Your task to perform on an android device: turn off data saver in the chrome app Image 0: 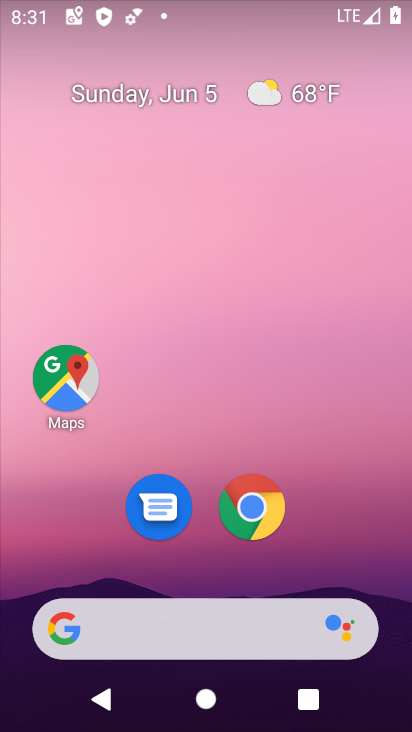
Step 0: click (264, 500)
Your task to perform on an android device: turn off data saver in the chrome app Image 1: 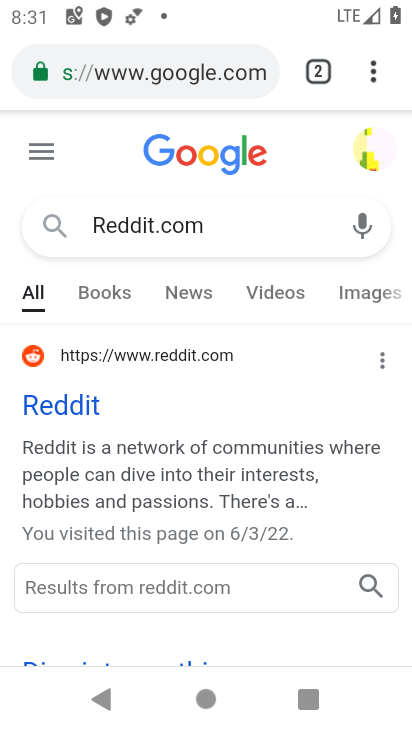
Step 1: click (370, 71)
Your task to perform on an android device: turn off data saver in the chrome app Image 2: 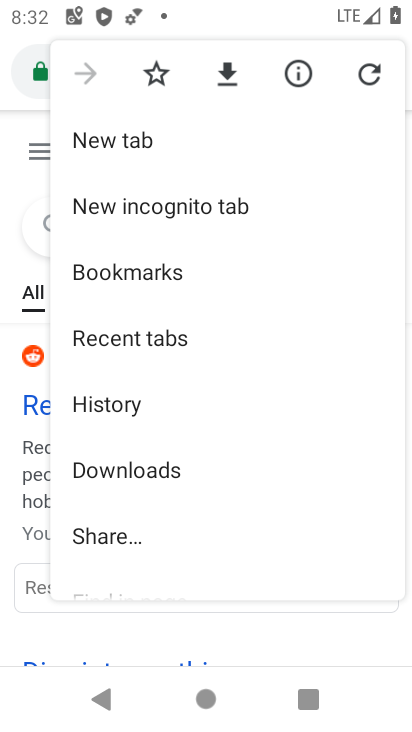
Step 2: drag from (179, 505) to (232, 155)
Your task to perform on an android device: turn off data saver in the chrome app Image 3: 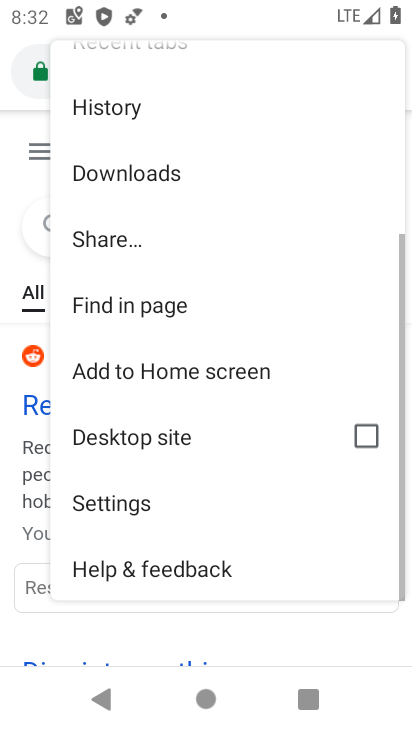
Step 3: drag from (158, 529) to (215, 178)
Your task to perform on an android device: turn off data saver in the chrome app Image 4: 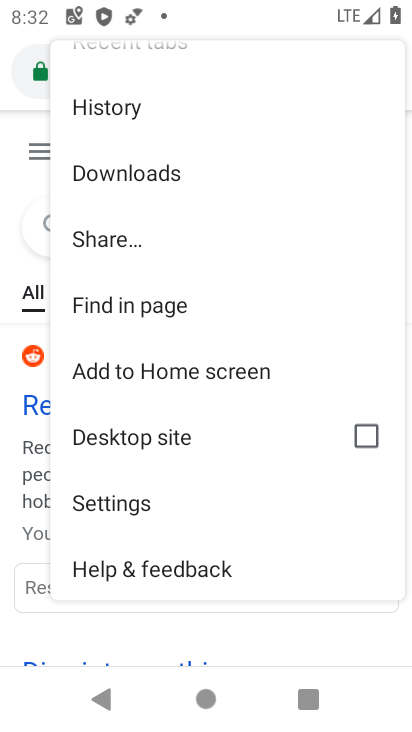
Step 4: click (135, 505)
Your task to perform on an android device: turn off data saver in the chrome app Image 5: 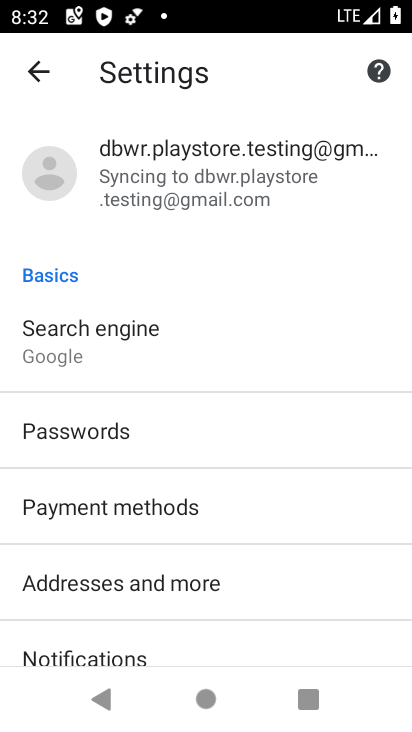
Step 5: drag from (121, 586) to (150, 77)
Your task to perform on an android device: turn off data saver in the chrome app Image 6: 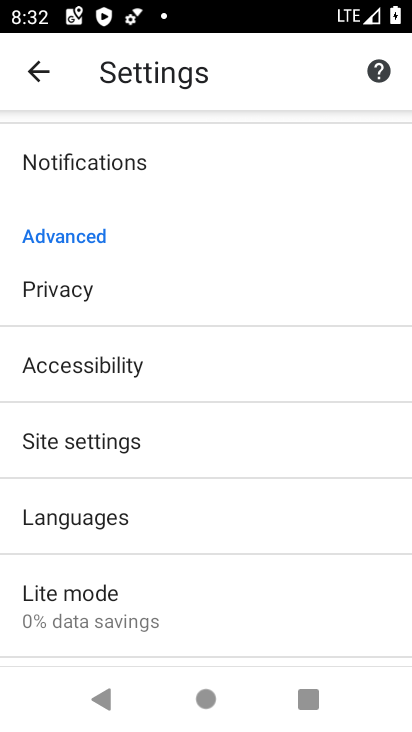
Step 6: click (105, 608)
Your task to perform on an android device: turn off data saver in the chrome app Image 7: 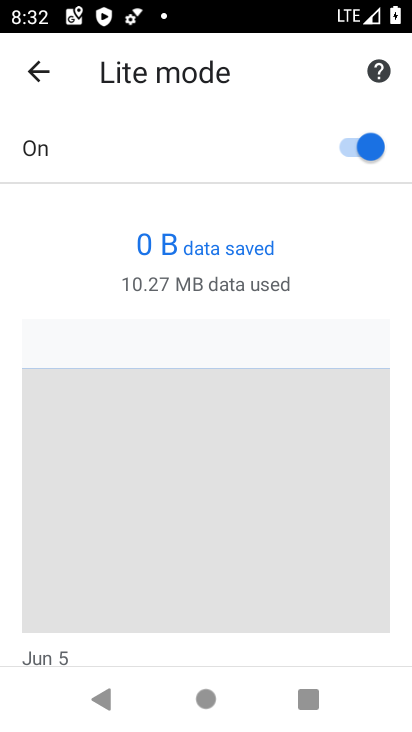
Step 7: click (329, 147)
Your task to perform on an android device: turn off data saver in the chrome app Image 8: 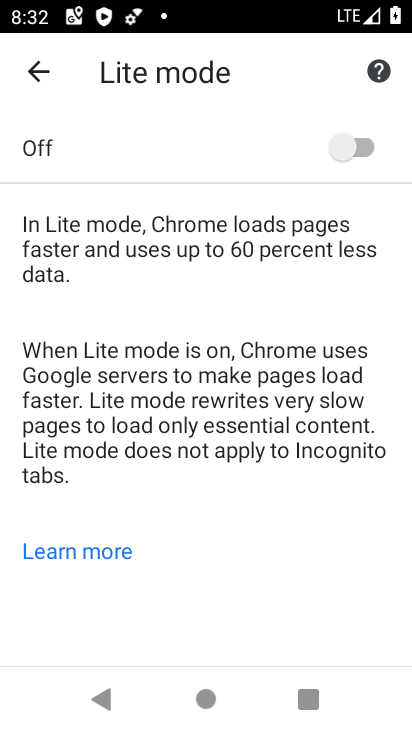
Step 8: task complete